Your task to perform on an android device: Show me popular games on the Play Store Image 0: 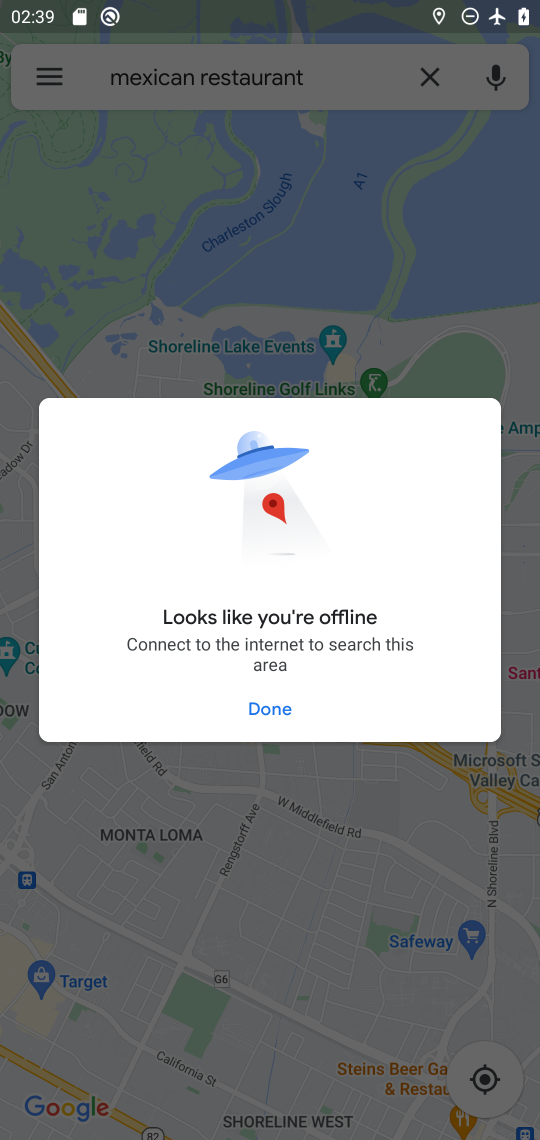
Step 0: press home button
Your task to perform on an android device: Show me popular games on the Play Store Image 1: 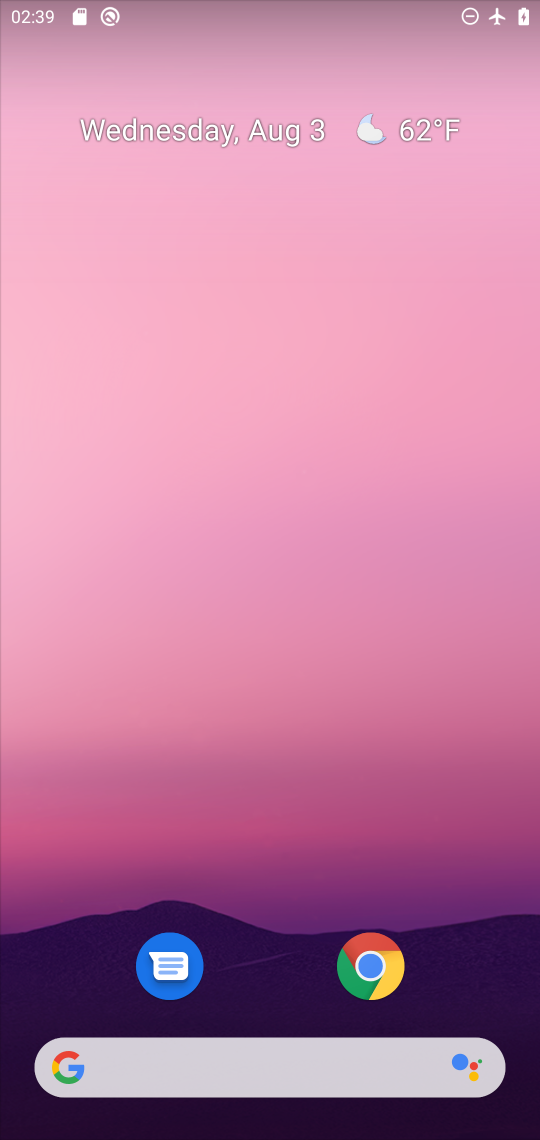
Step 1: drag from (264, 970) to (221, 231)
Your task to perform on an android device: Show me popular games on the Play Store Image 2: 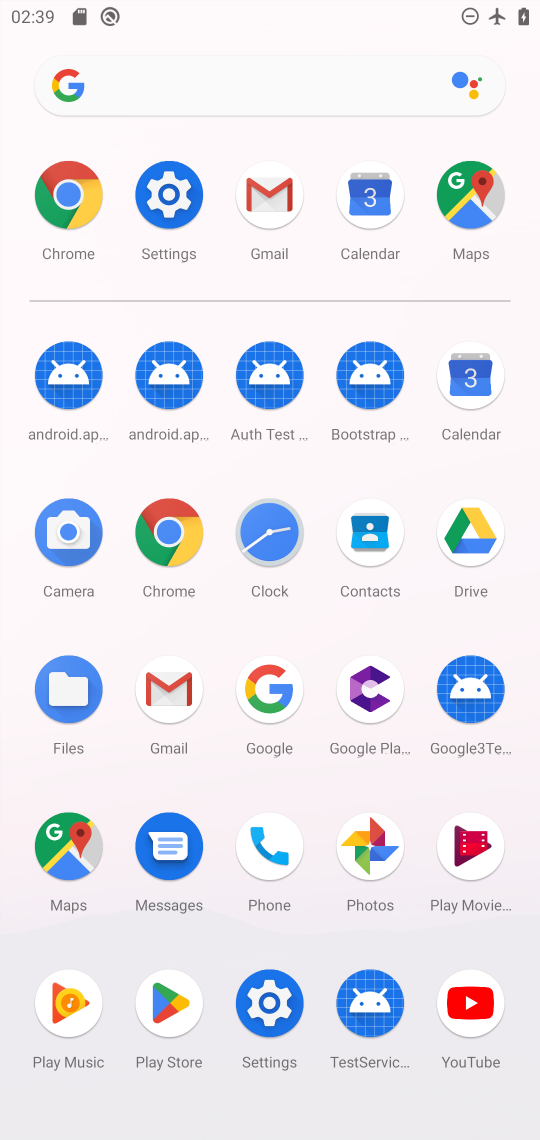
Step 2: click (167, 1004)
Your task to perform on an android device: Show me popular games on the Play Store Image 3: 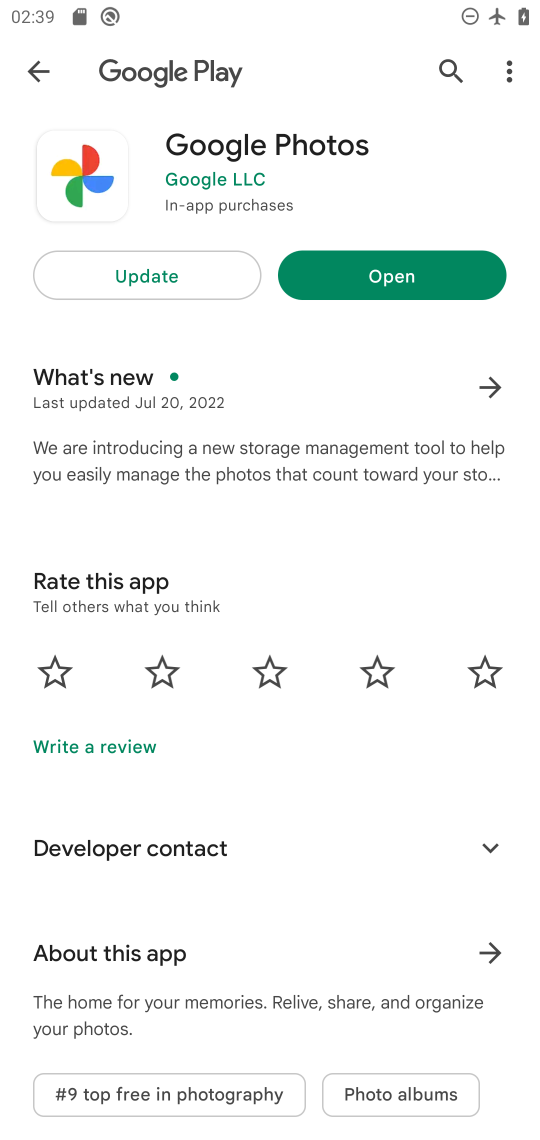
Step 3: click (24, 55)
Your task to perform on an android device: Show me popular games on the Play Store Image 4: 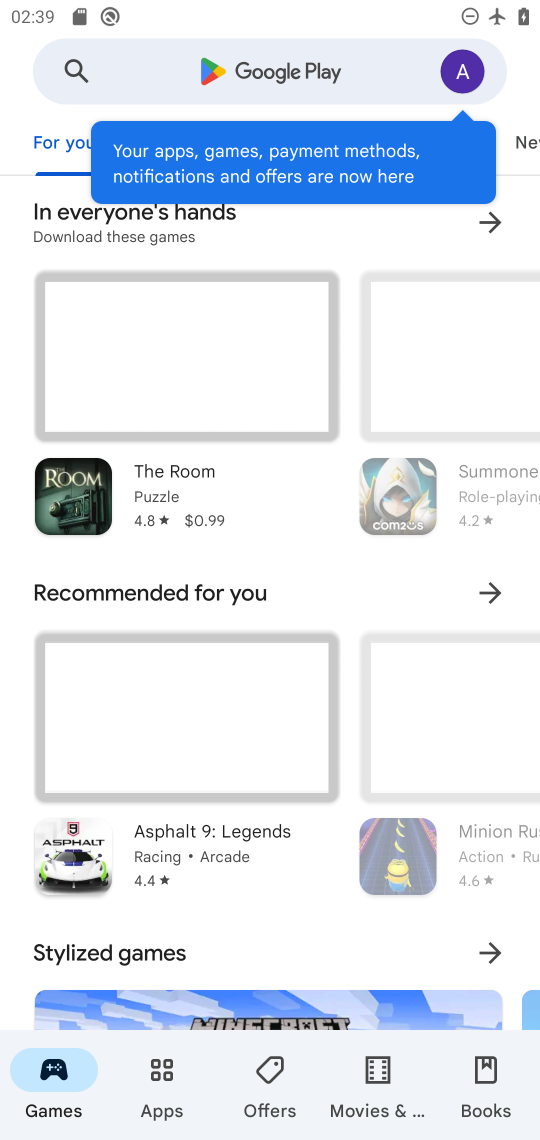
Step 4: click (187, 139)
Your task to perform on an android device: Show me popular games on the Play Store Image 5: 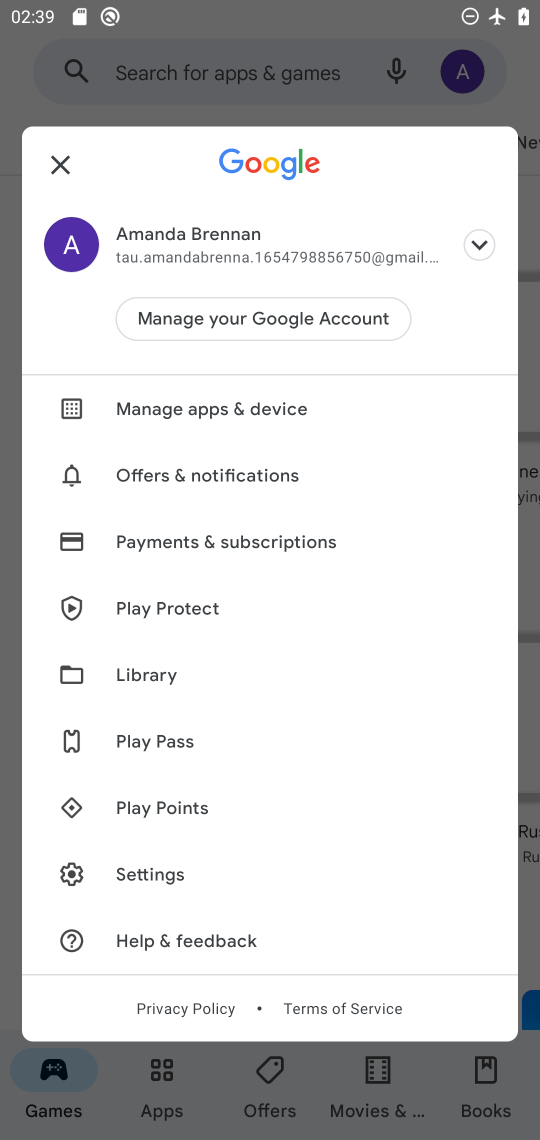
Step 5: click (61, 160)
Your task to perform on an android device: Show me popular games on the Play Store Image 6: 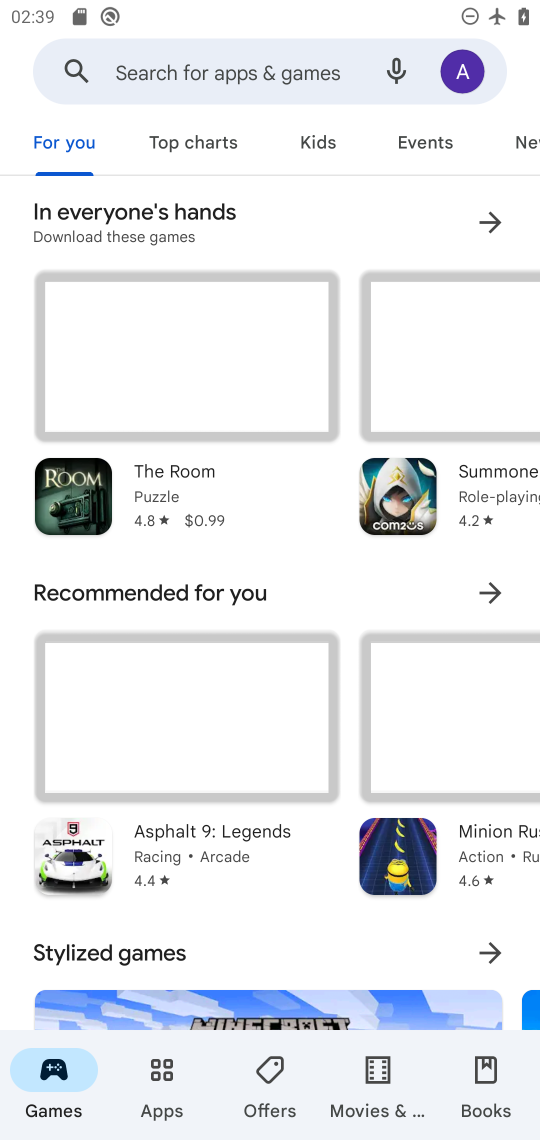
Step 6: click (187, 152)
Your task to perform on an android device: Show me popular games on the Play Store Image 7: 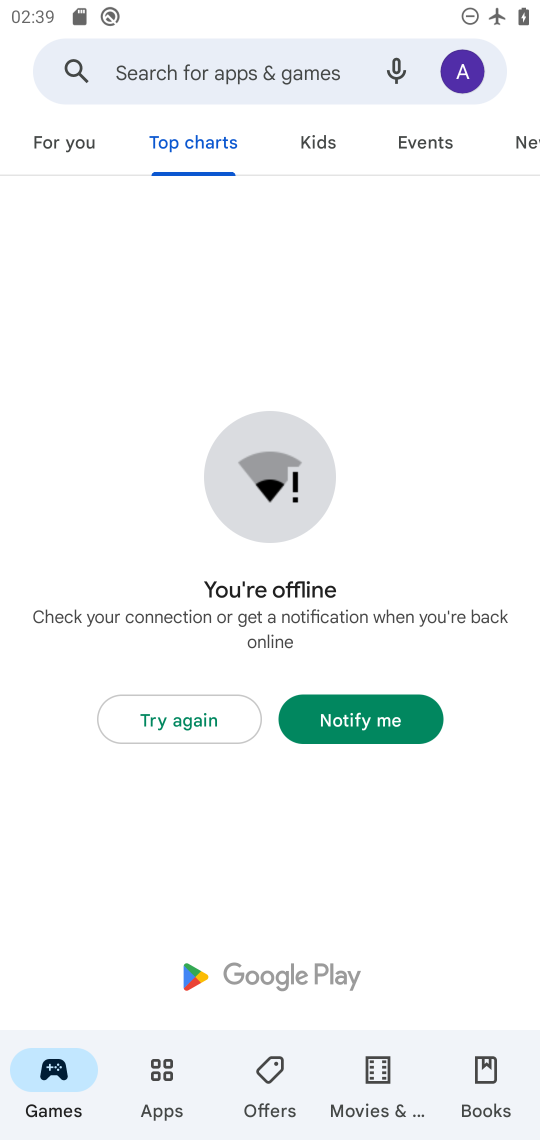
Step 7: task complete